Your task to perform on an android device: When is my next meeting? Image 0: 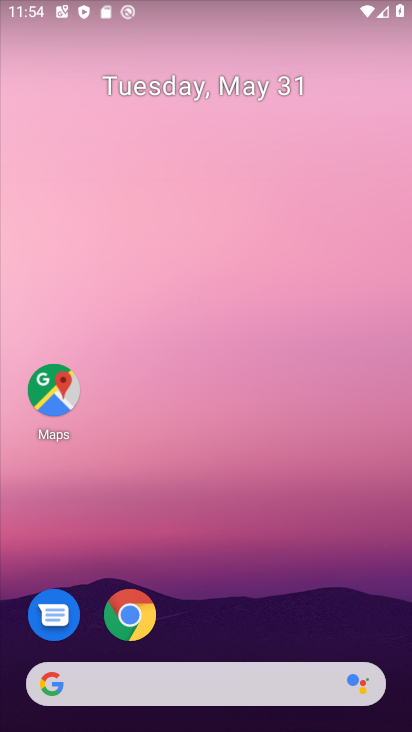
Step 0: task complete